Your task to perform on an android device: turn on sleep mode Image 0: 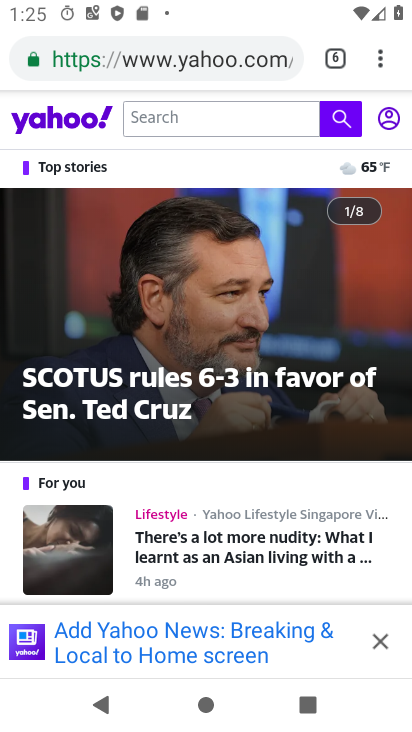
Step 0: press home button
Your task to perform on an android device: turn on sleep mode Image 1: 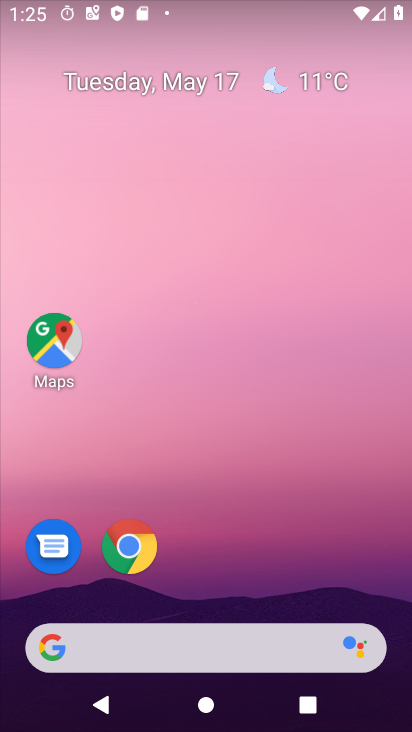
Step 1: drag from (203, 651) to (350, 108)
Your task to perform on an android device: turn on sleep mode Image 2: 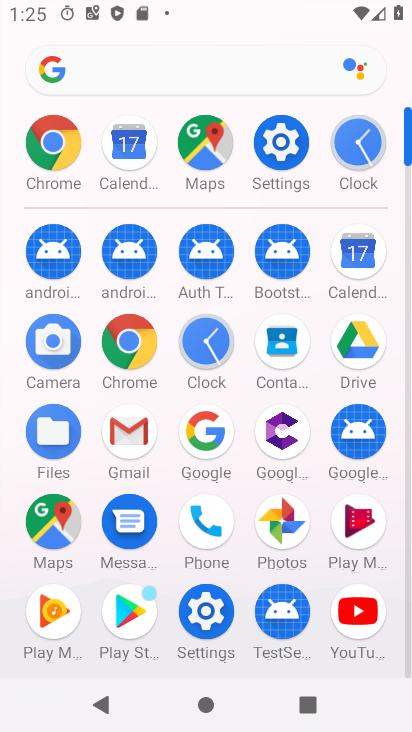
Step 2: click (291, 142)
Your task to perform on an android device: turn on sleep mode Image 3: 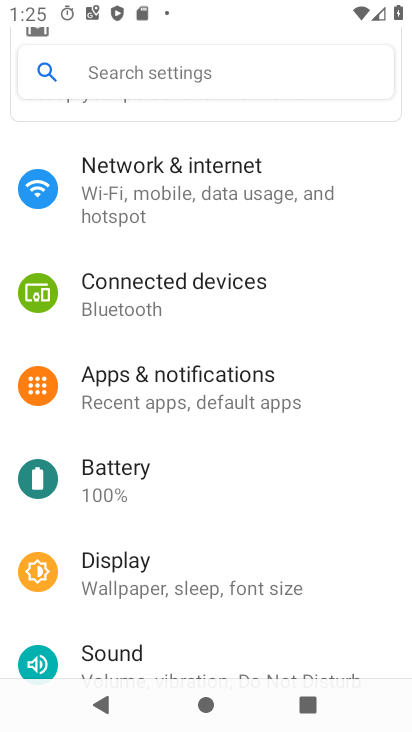
Step 3: click (203, 593)
Your task to perform on an android device: turn on sleep mode Image 4: 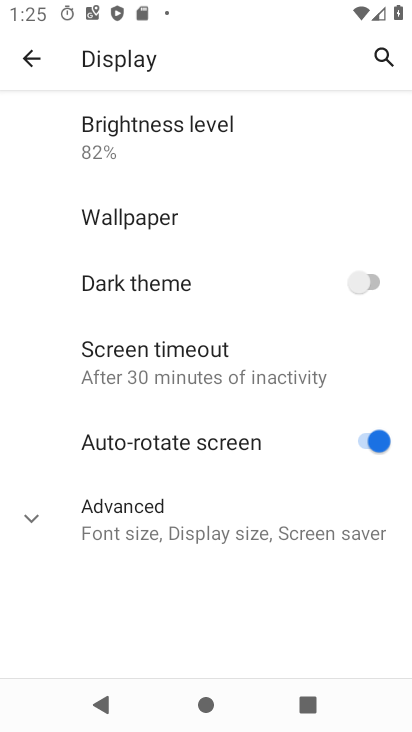
Step 4: task complete